Your task to perform on an android device: Go to battery settings Image 0: 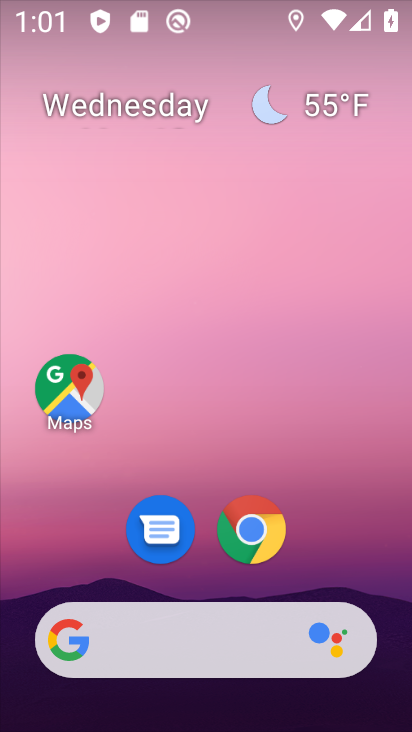
Step 0: drag from (196, 717) to (190, 132)
Your task to perform on an android device: Go to battery settings Image 1: 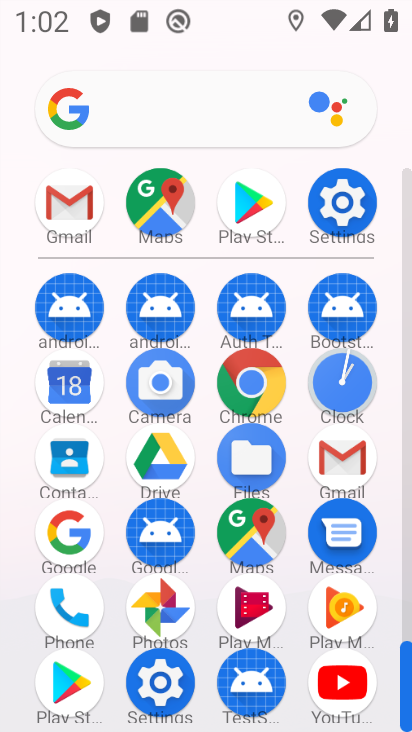
Step 1: click (345, 201)
Your task to perform on an android device: Go to battery settings Image 2: 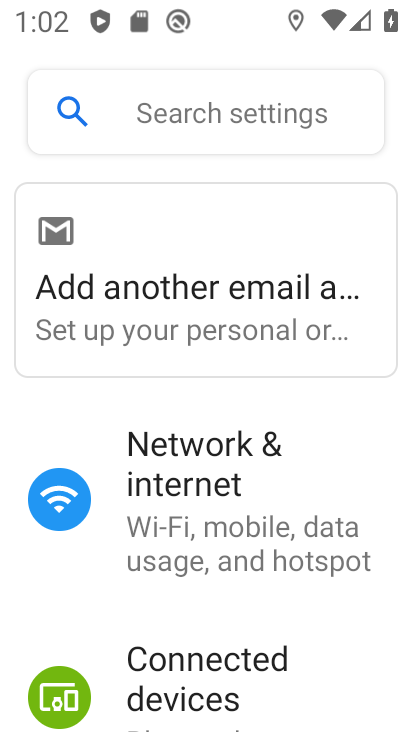
Step 2: drag from (231, 676) to (210, 237)
Your task to perform on an android device: Go to battery settings Image 3: 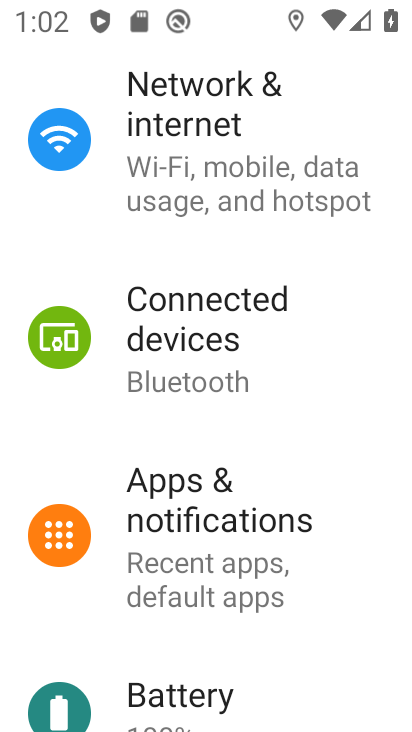
Step 3: drag from (253, 643) to (237, 275)
Your task to perform on an android device: Go to battery settings Image 4: 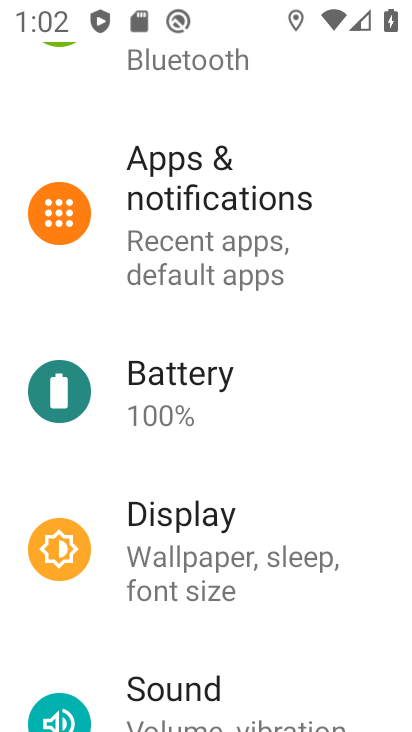
Step 4: click (158, 385)
Your task to perform on an android device: Go to battery settings Image 5: 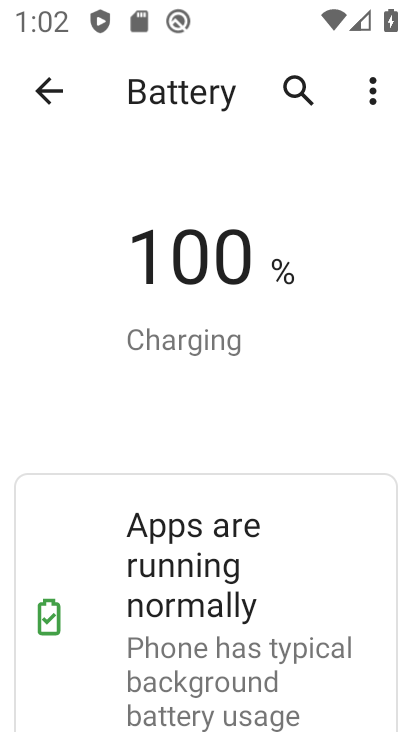
Step 5: task complete